Your task to perform on an android device: toggle notifications settings in the gmail app Image 0: 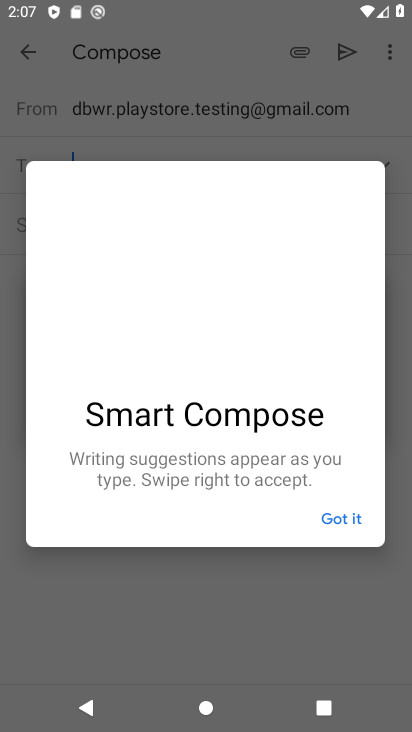
Step 0: press home button
Your task to perform on an android device: toggle notifications settings in the gmail app Image 1: 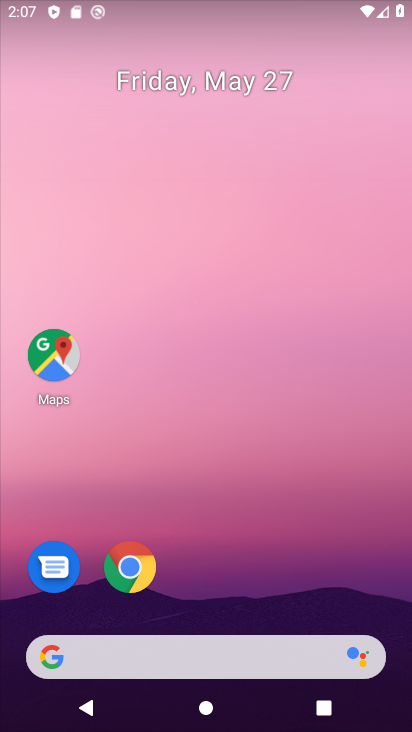
Step 1: drag from (251, 568) to (270, 124)
Your task to perform on an android device: toggle notifications settings in the gmail app Image 2: 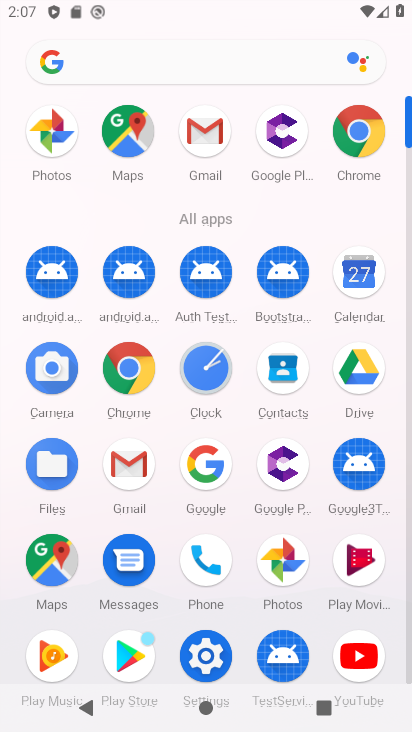
Step 2: click (209, 642)
Your task to perform on an android device: toggle notifications settings in the gmail app Image 3: 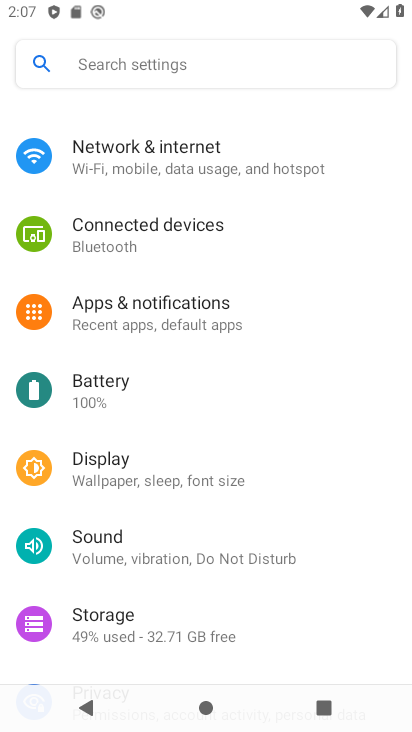
Step 3: press back button
Your task to perform on an android device: toggle notifications settings in the gmail app Image 4: 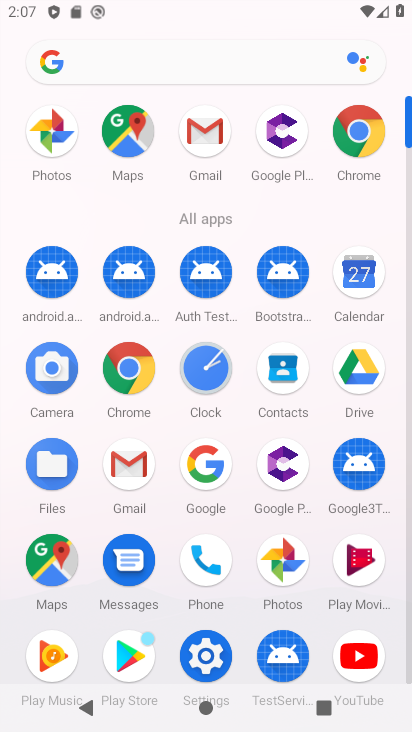
Step 4: click (131, 469)
Your task to perform on an android device: toggle notifications settings in the gmail app Image 5: 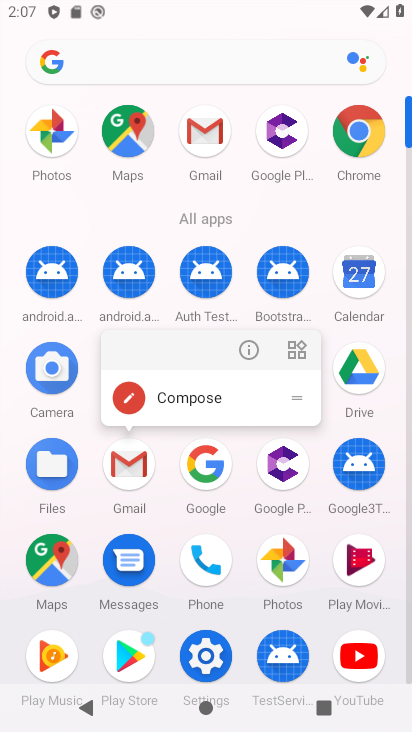
Step 5: click (246, 348)
Your task to perform on an android device: toggle notifications settings in the gmail app Image 6: 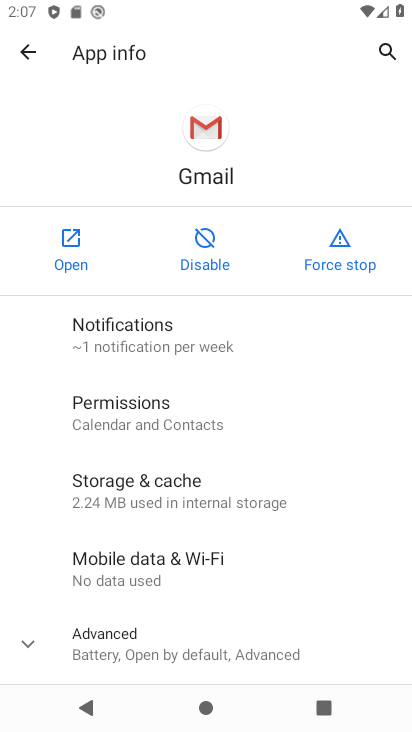
Step 6: click (265, 323)
Your task to perform on an android device: toggle notifications settings in the gmail app Image 7: 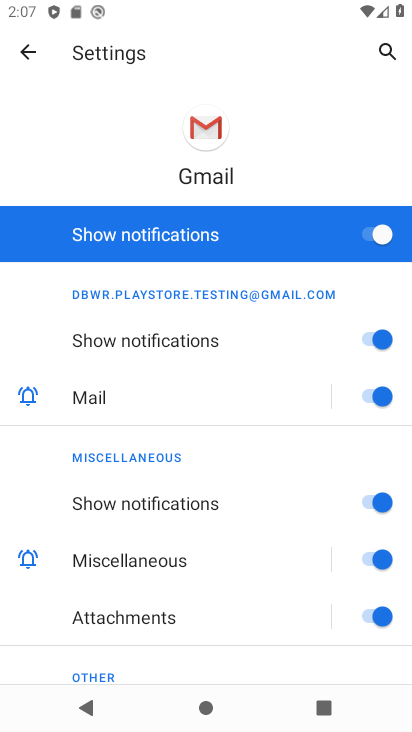
Step 7: click (364, 233)
Your task to perform on an android device: toggle notifications settings in the gmail app Image 8: 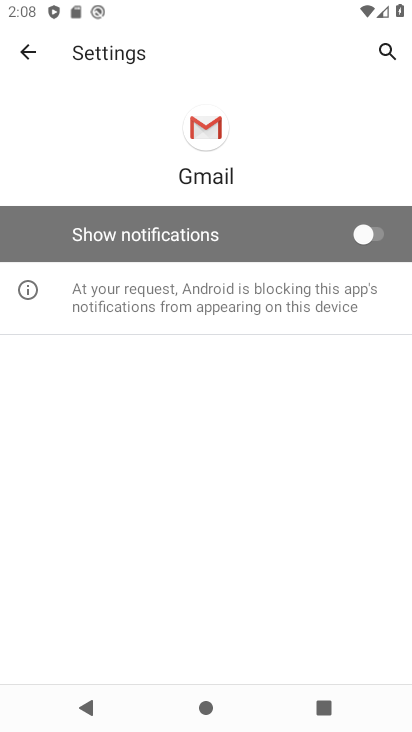
Step 8: task complete